Your task to perform on an android device: toggle notifications settings in the gmail app Image 0: 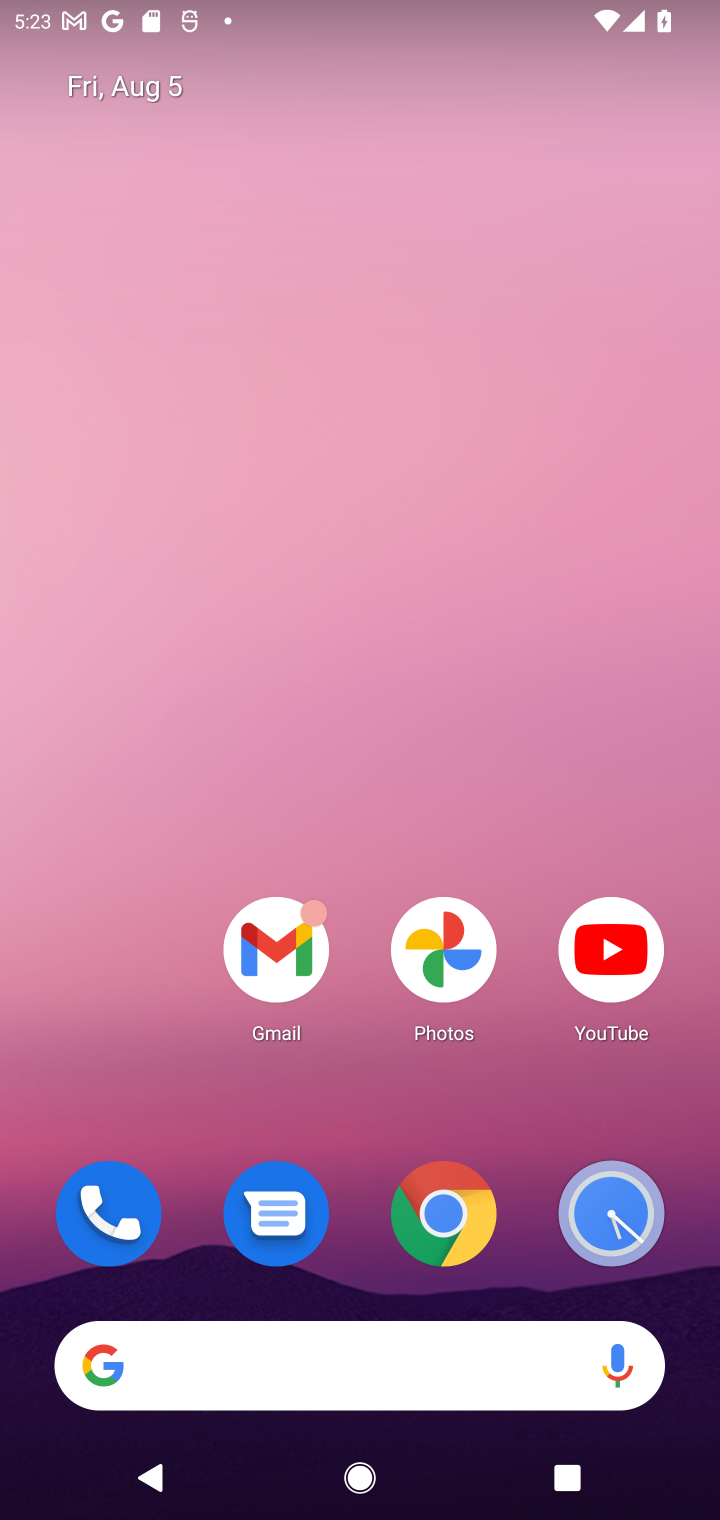
Step 0: click (246, 933)
Your task to perform on an android device: toggle notifications settings in the gmail app Image 1: 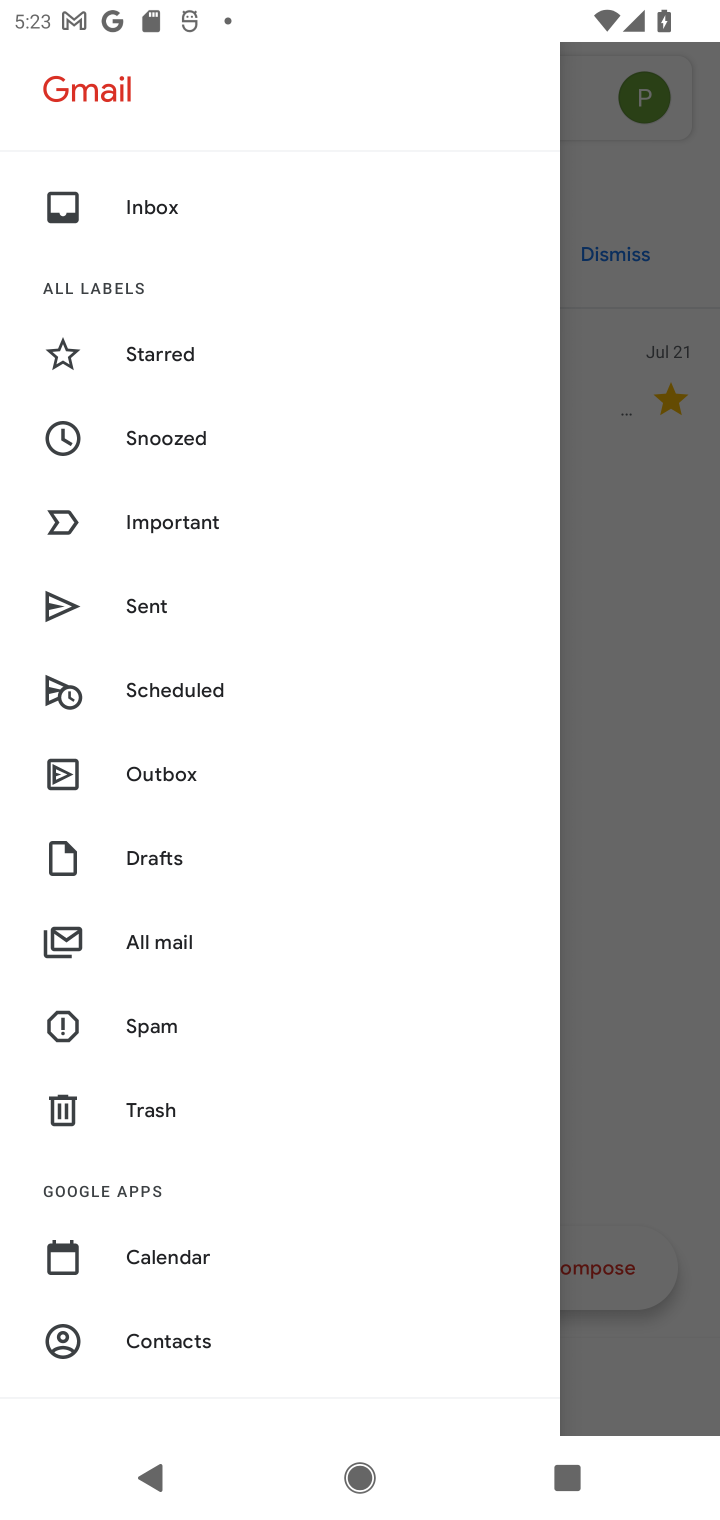
Step 1: click (195, 698)
Your task to perform on an android device: toggle notifications settings in the gmail app Image 2: 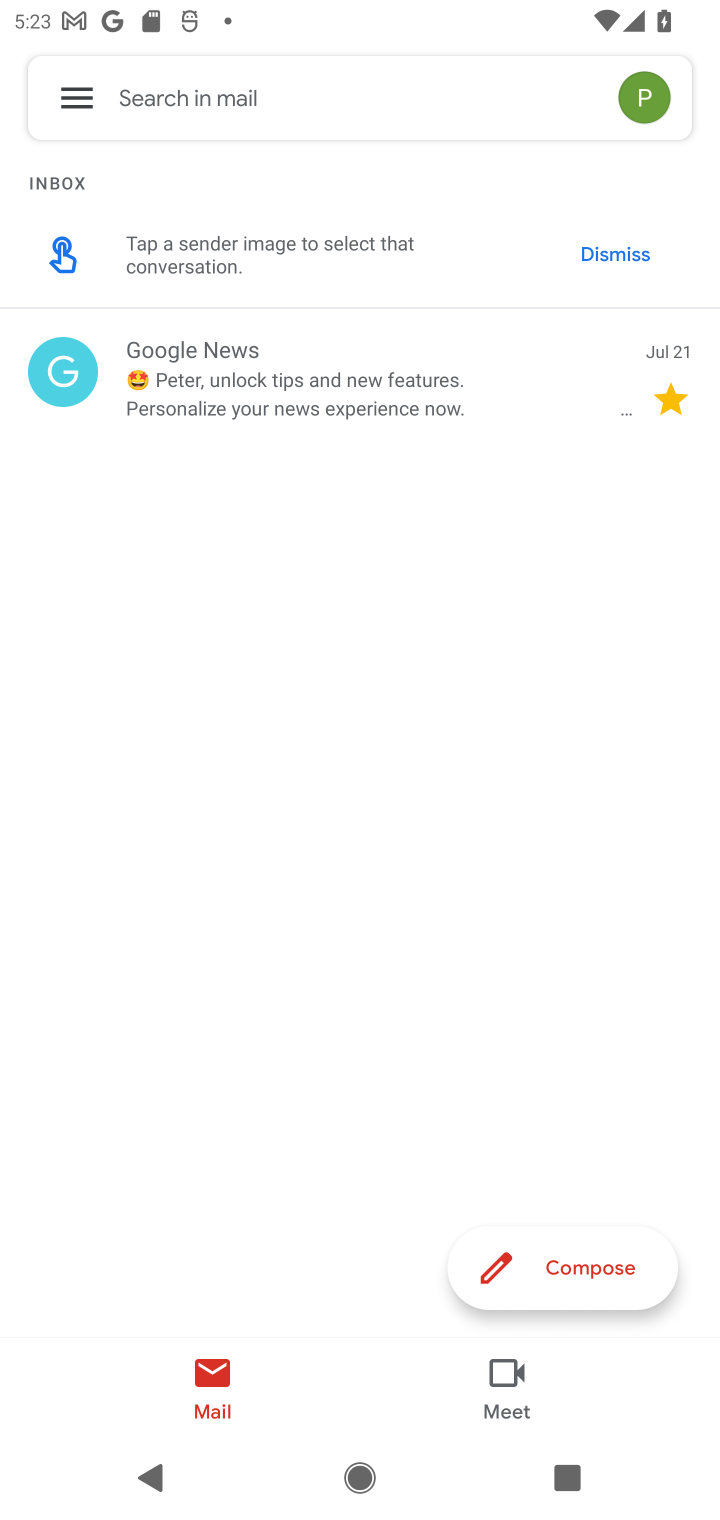
Step 2: click (314, 1302)
Your task to perform on an android device: toggle notifications settings in the gmail app Image 3: 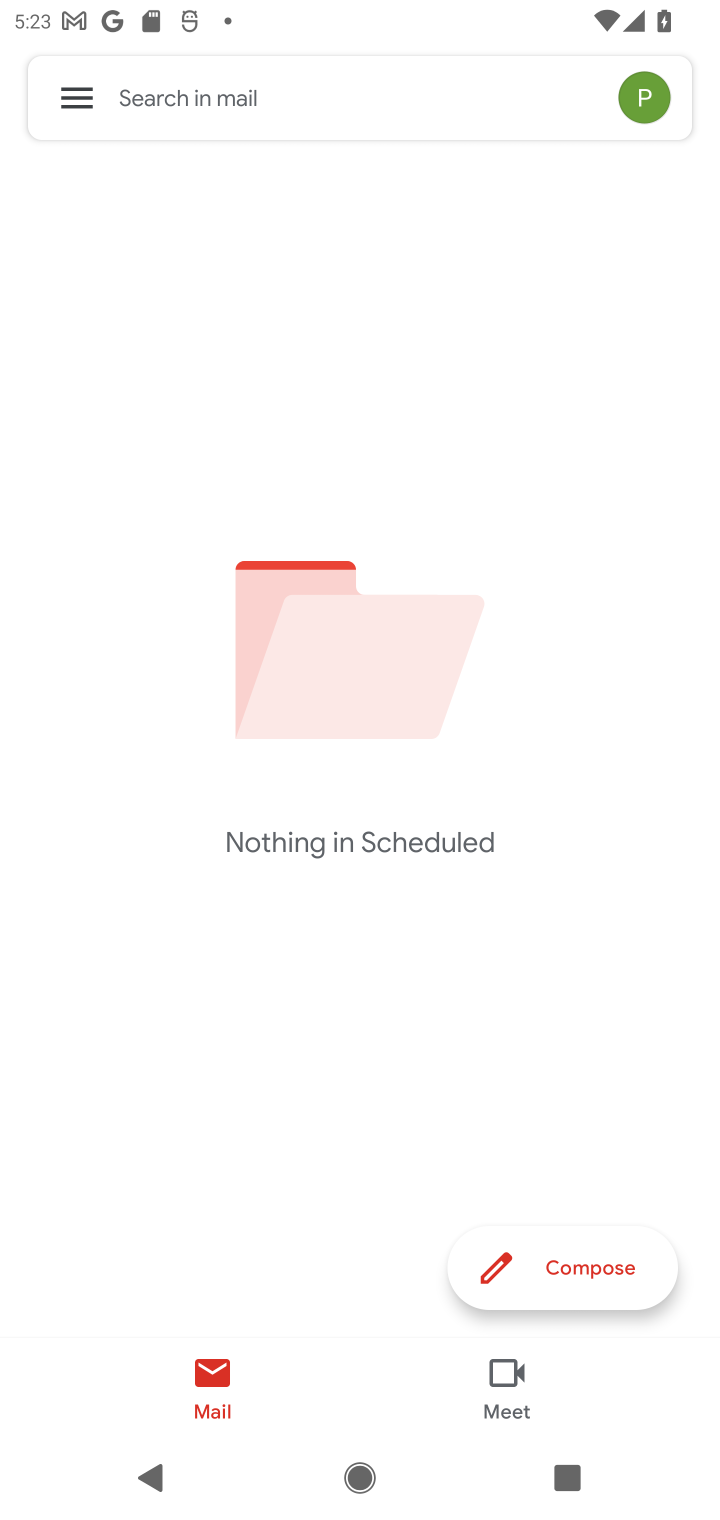
Step 3: task complete